Your task to perform on an android device: Open calendar and show me the third week of next month Image 0: 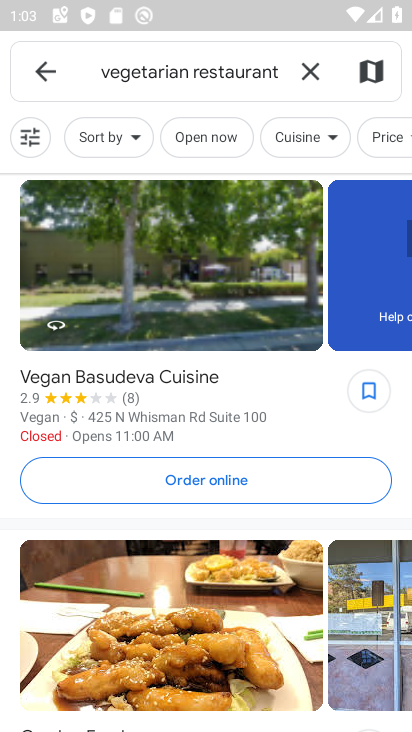
Step 0: press home button
Your task to perform on an android device: Open calendar and show me the third week of next month Image 1: 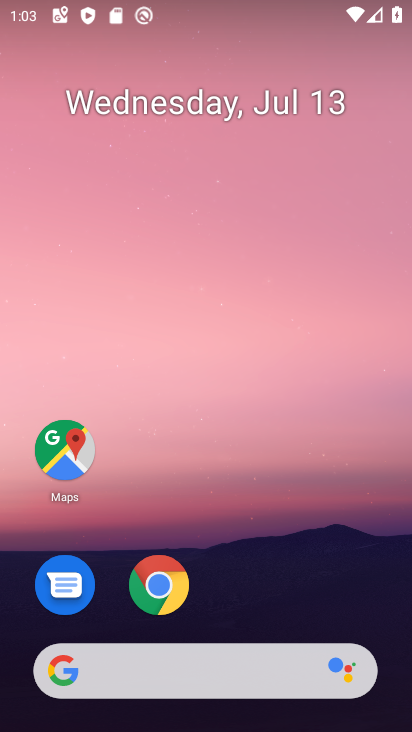
Step 1: drag from (220, 676) to (330, 195)
Your task to perform on an android device: Open calendar and show me the third week of next month Image 2: 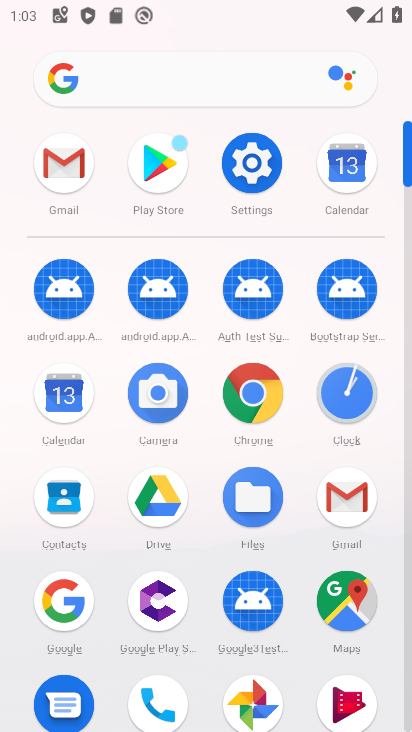
Step 2: click (49, 398)
Your task to perform on an android device: Open calendar and show me the third week of next month Image 3: 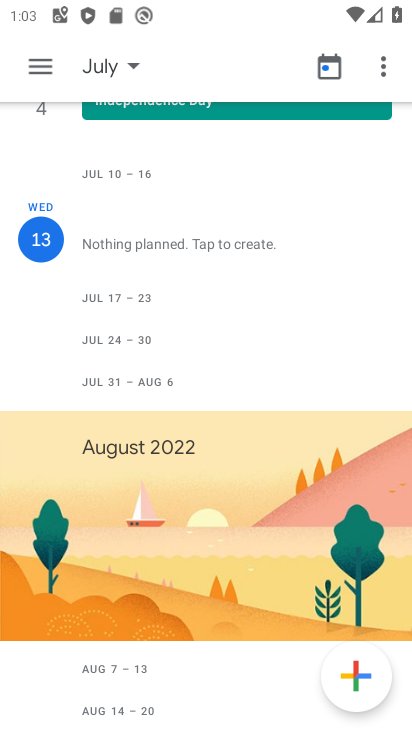
Step 3: click (108, 68)
Your task to perform on an android device: Open calendar and show me the third week of next month Image 4: 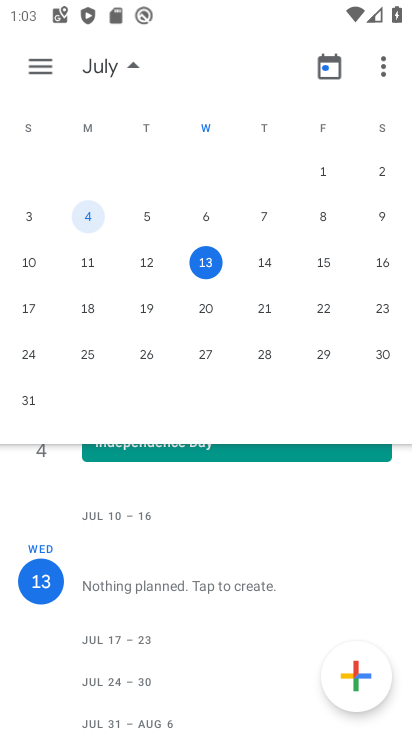
Step 4: drag from (338, 312) to (55, 218)
Your task to perform on an android device: Open calendar and show me the third week of next month Image 5: 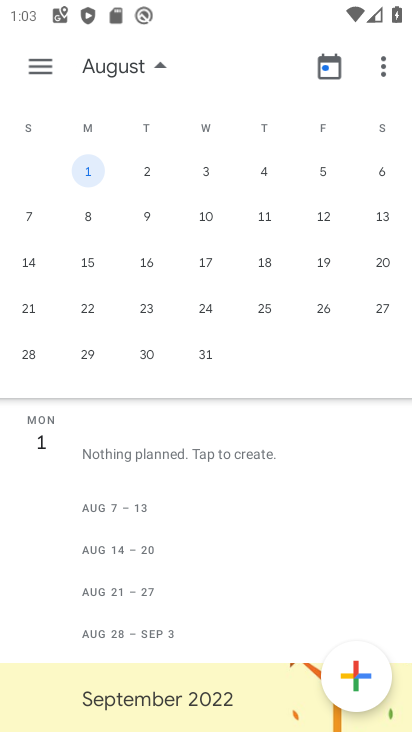
Step 5: click (29, 262)
Your task to perform on an android device: Open calendar and show me the third week of next month Image 6: 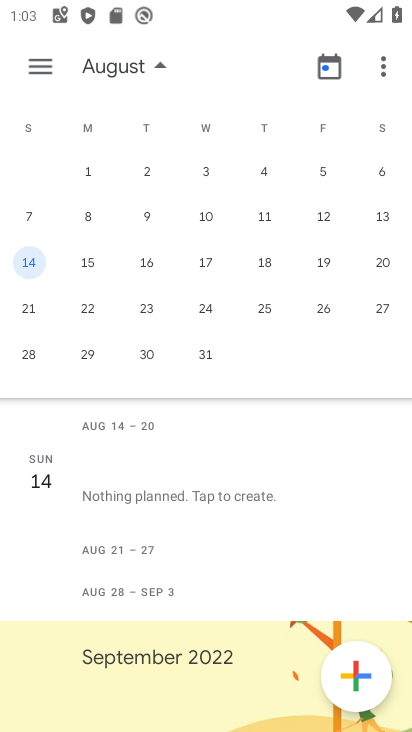
Step 6: click (40, 74)
Your task to perform on an android device: Open calendar and show me the third week of next month Image 7: 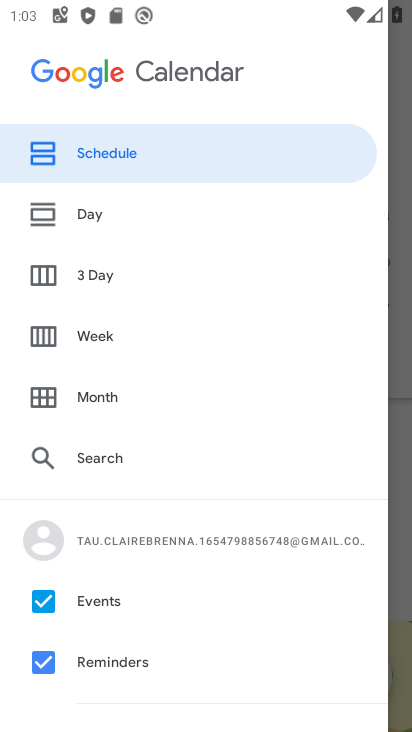
Step 7: click (103, 343)
Your task to perform on an android device: Open calendar and show me the third week of next month Image 8: 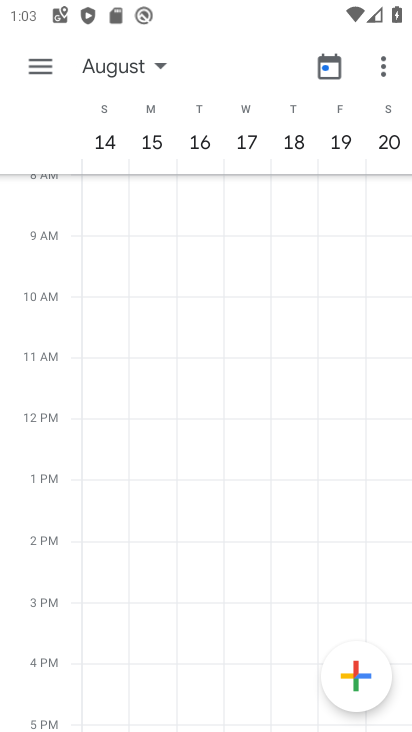
Step 8: task complete